Your task to perform on an android device: open app "Skype" Image 0: 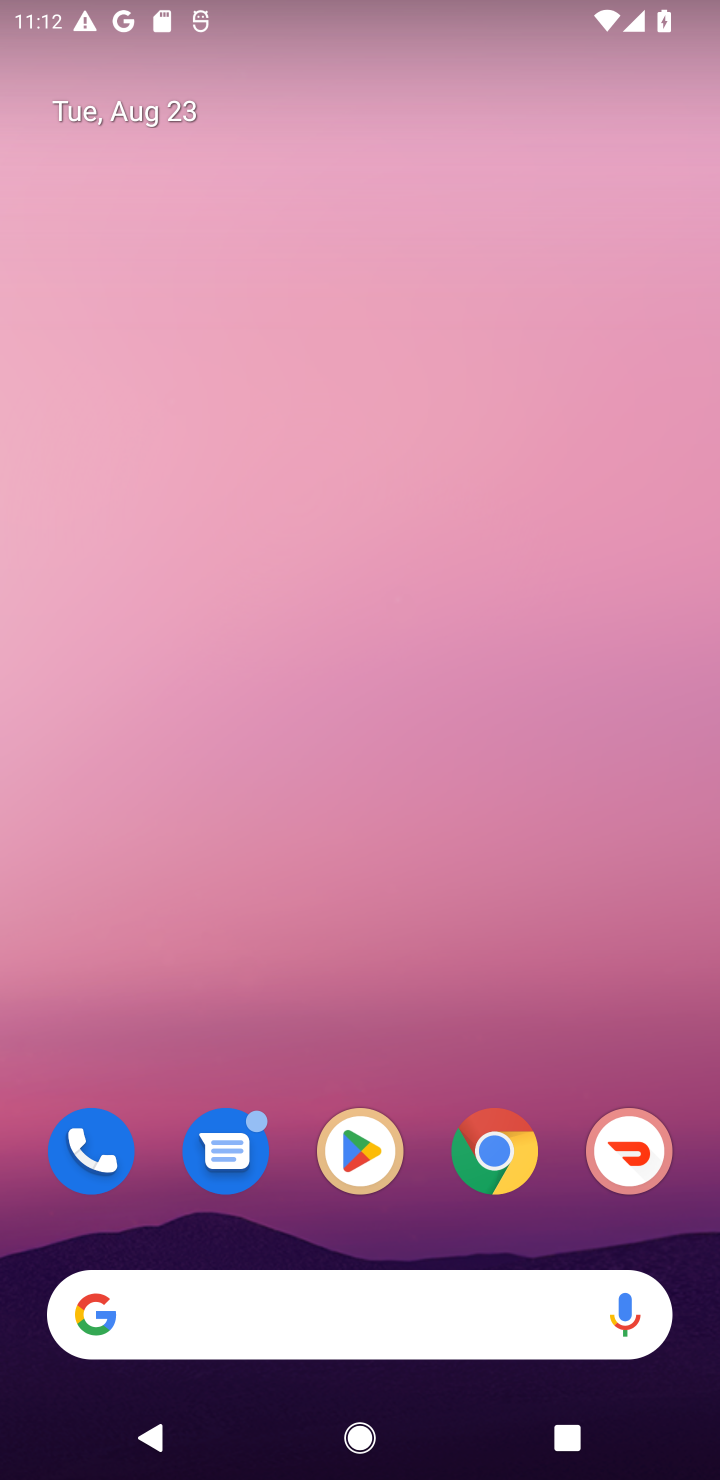
Step 0: click (380, 1181)
Your task to perform on an android device: open app "Skype" Image 1: 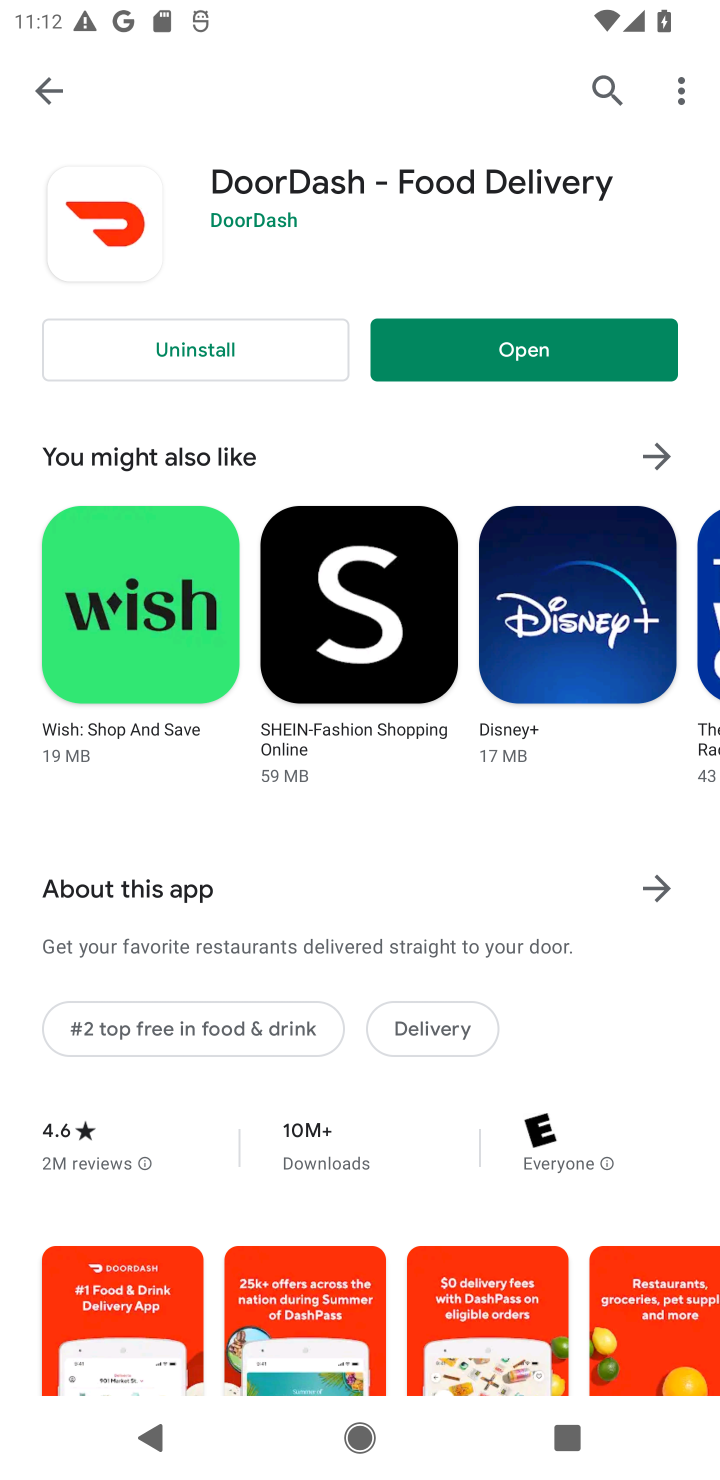
Step 1: click (649, 72)
Your task to perform on an android device: open app "Skype" Image 2: 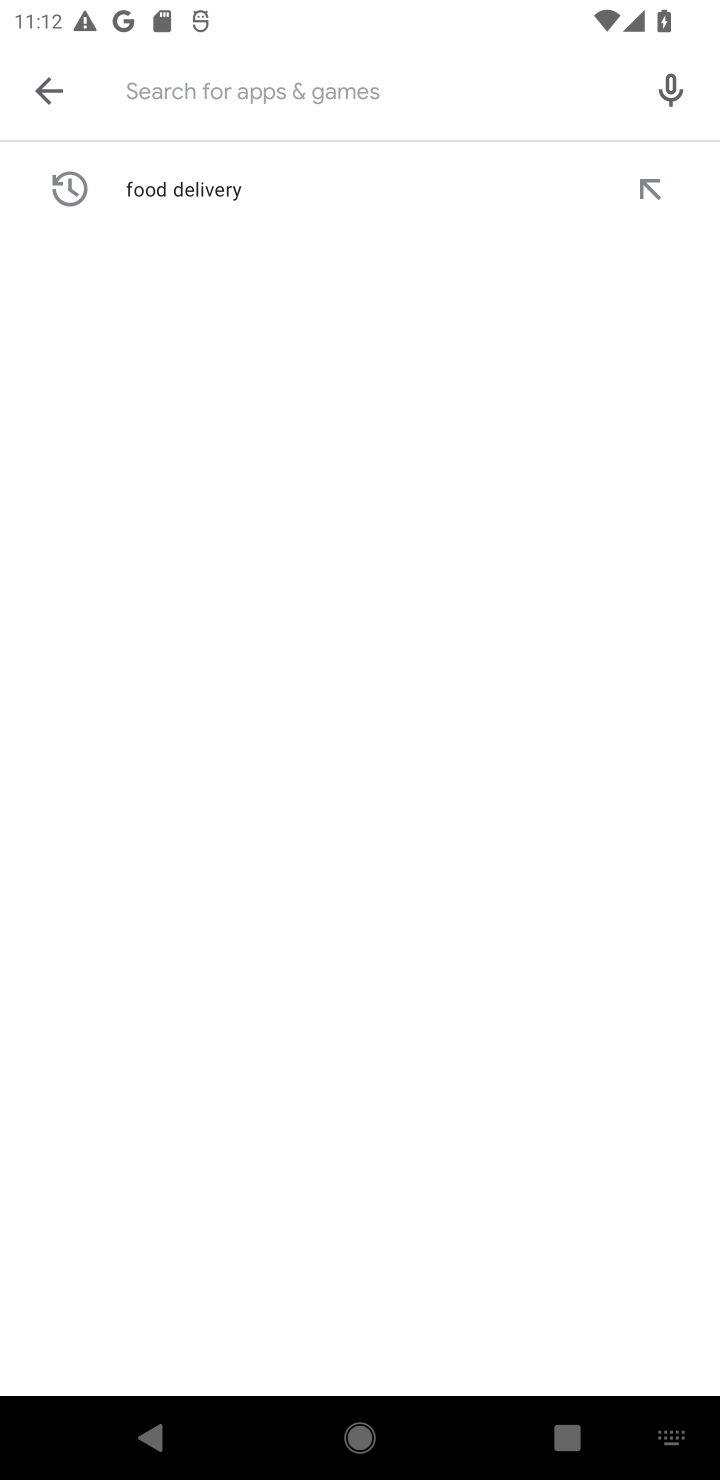
Step 2: click (535, 95)
Your task to perform on an android device: open app "Skype" Image 3: 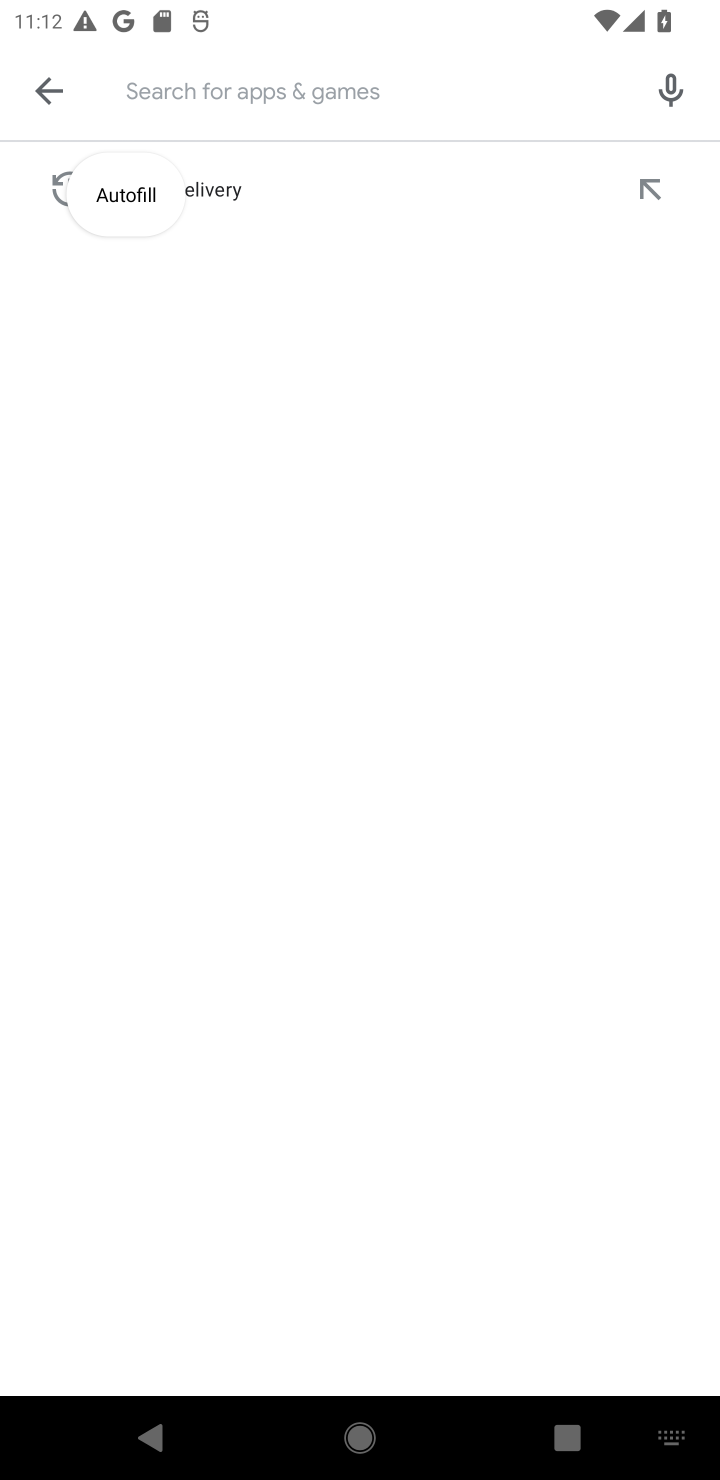
Step 3: type "Skype"
Your task to perform on an android device: open app "Skype" Image 4: 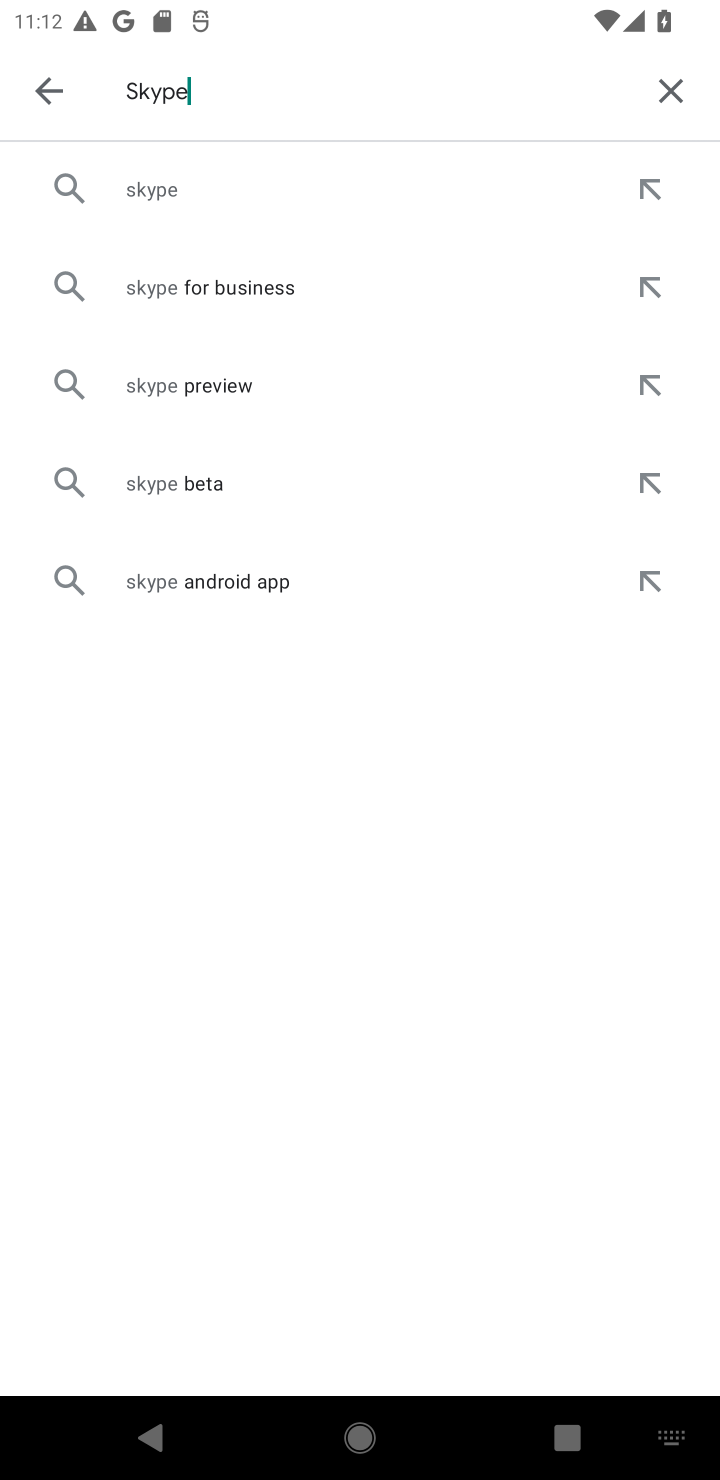
Step 4: click (207, 157)
Your task to perform on an android device: open app "Skype" Image 5: 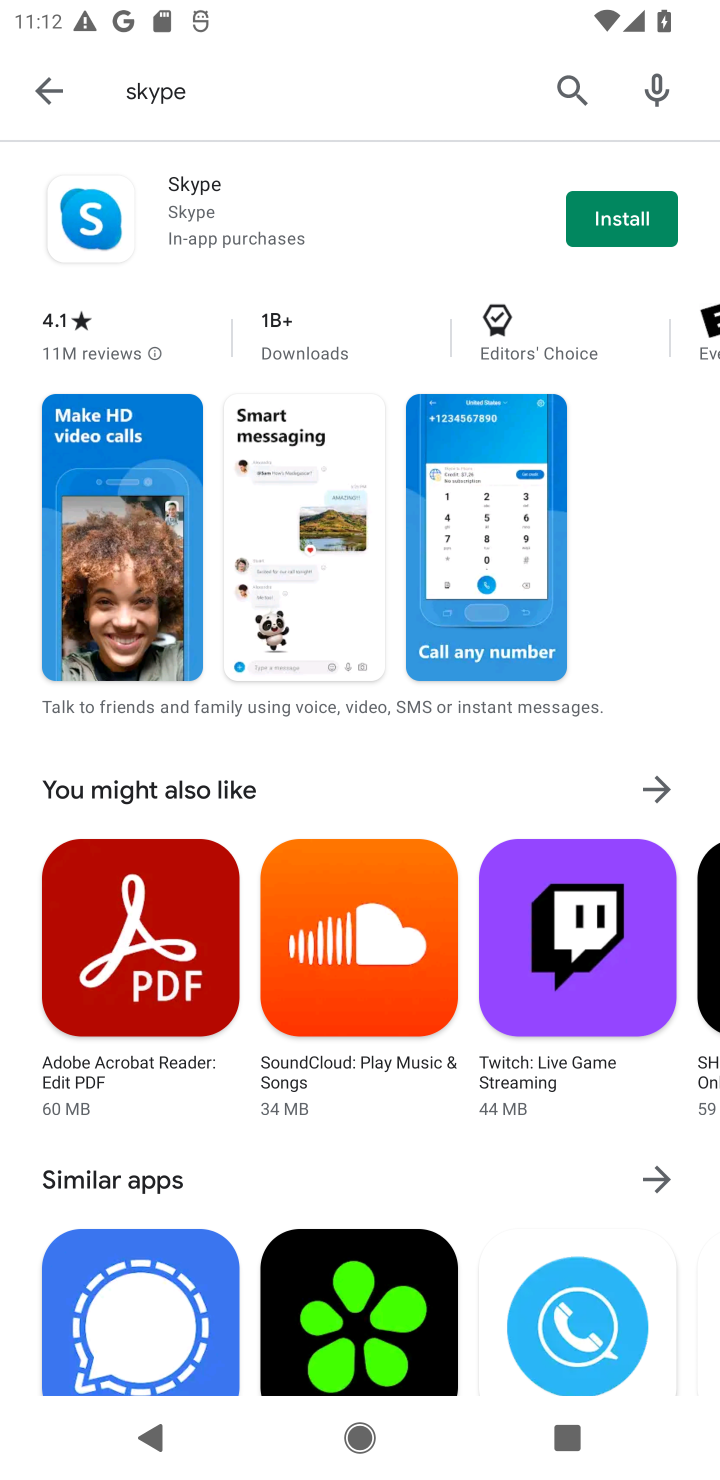
Step 5: task complete